Your task to perform on an android device: Go to Android settings Image 0: 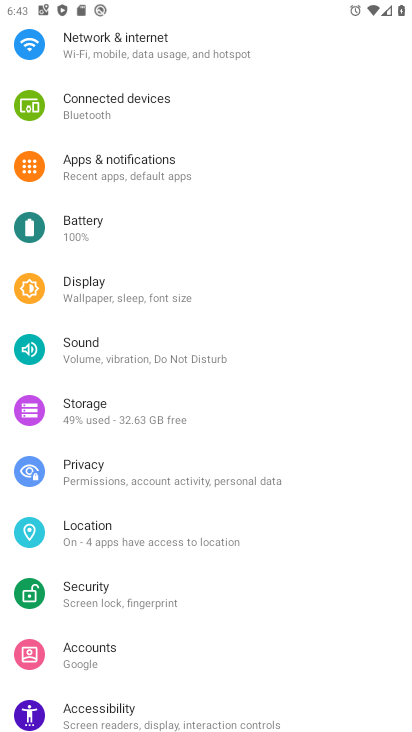
Step 0: drag from (178, 580) to (146, 266)
Your task to perform on an android device: Go to Android settings Image 1: 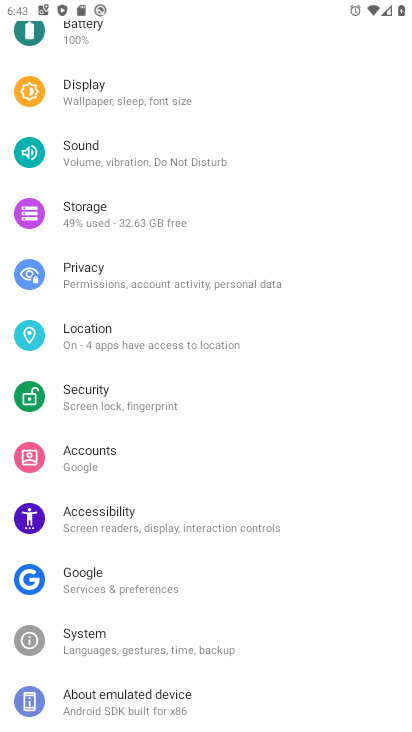
Step 1: task complete